Your task to perform on an android device: Go to Amazon Image 0: 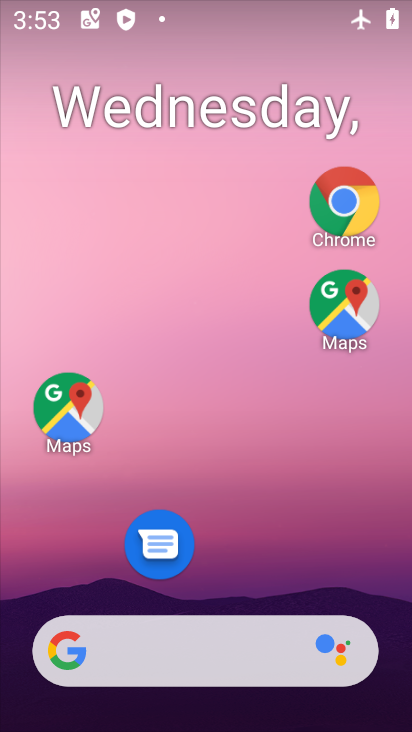
Step 0: click (345, 221)
Your task to perform on an android device: Go to Amazon Image 1: 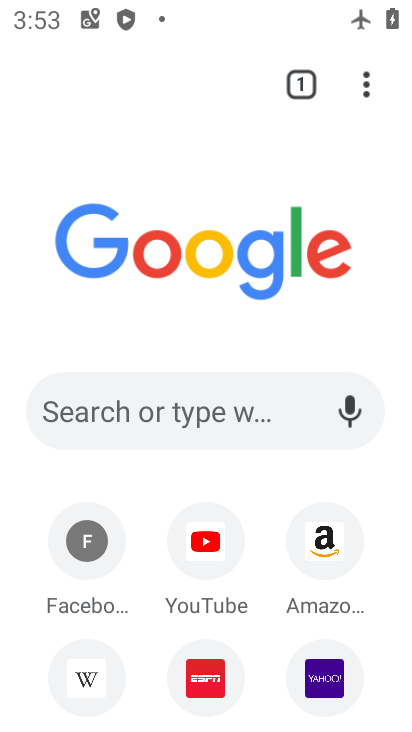
Step 1: click (318, 527)
Your task to perform on an android device: Go to Amazon Image 2: 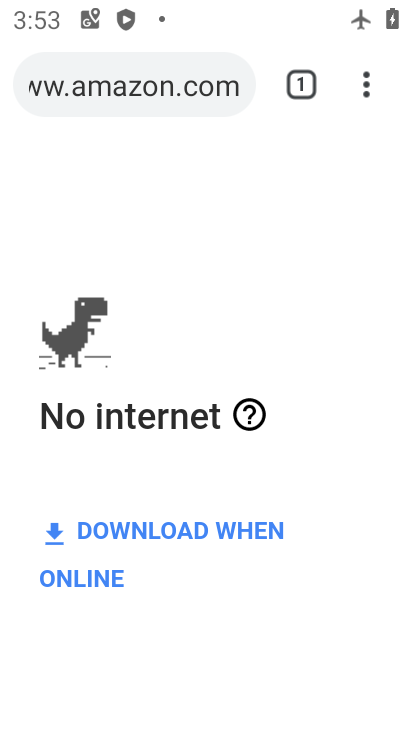
Step 2: task complete